Your task to perform on an android device: Go to calendar. Show me events next week Image 0: 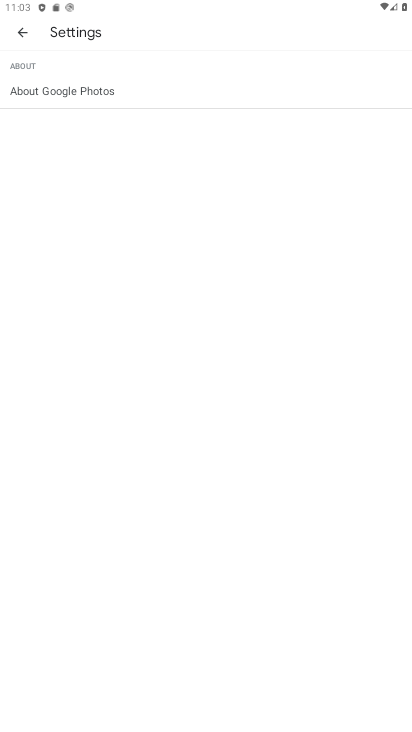
Step 0: press home button
Your task to perform on an android device: Go to calendar. Show me events next week Image 1: 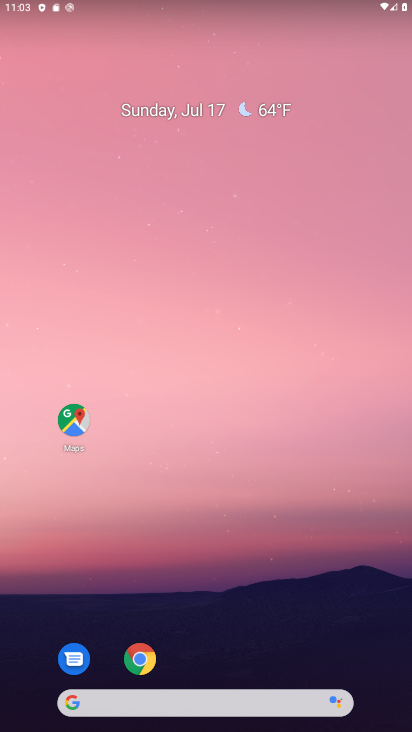
Step 1: drag from (266, 604) to (311, 225)
Your task to perform on an android device: Go to calendar. Show me events next week Image 2: 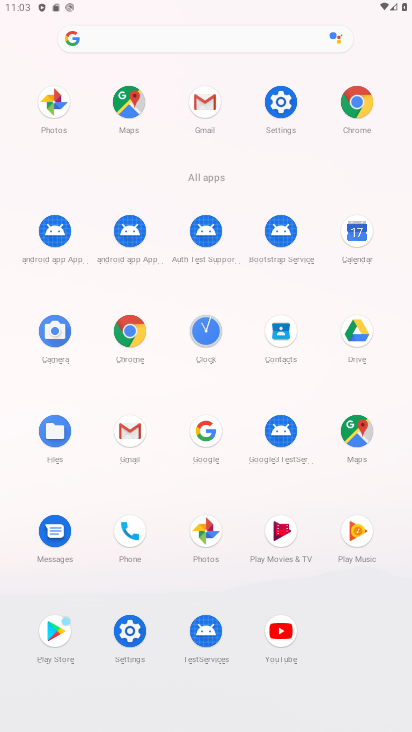
Step 2: click (353, 228)
Your task to perform on an android device: Go to calendar. Show me events next week Image 3: 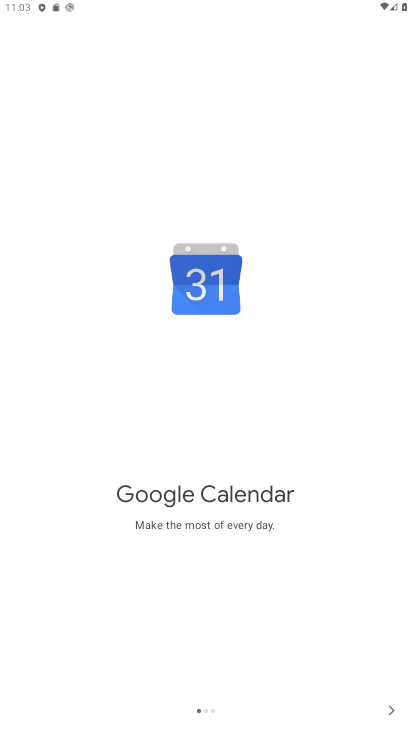
Step 3: click (386, 707)
Your task to perform on an android device: Go to calendar. Show me events next week Image 4: 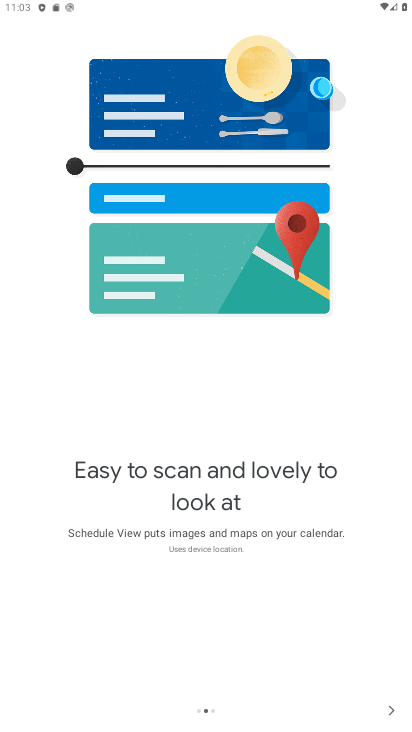
Step 4: click (390, 708)
Your task to perform on an android device: Go to calendar. Show me events next week Image 5: 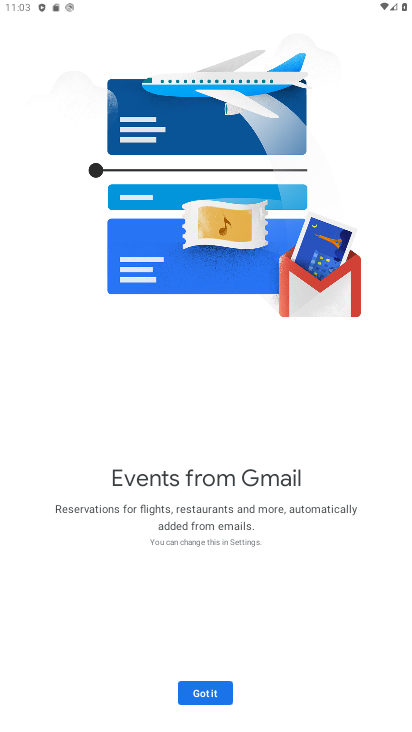
Step 5: click (227, 683)
Your task to perform on an android device: Go to calendar. Show me events next week Image 6: 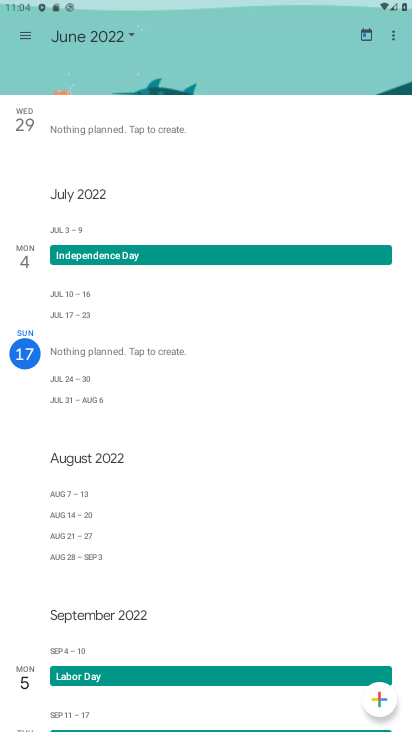
Step 6: click (168, 291)
Your task to perform on an android device: Go to calendar. Show me events next week Image 7: 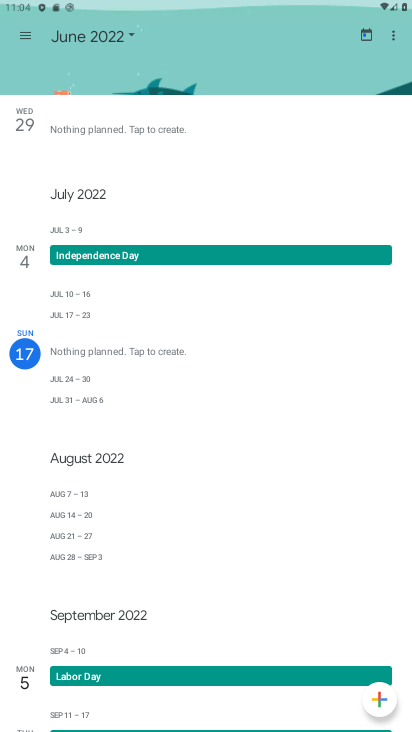
Step 7: task complete